Your task to perform on an android device: Go to internet settings Image 0: 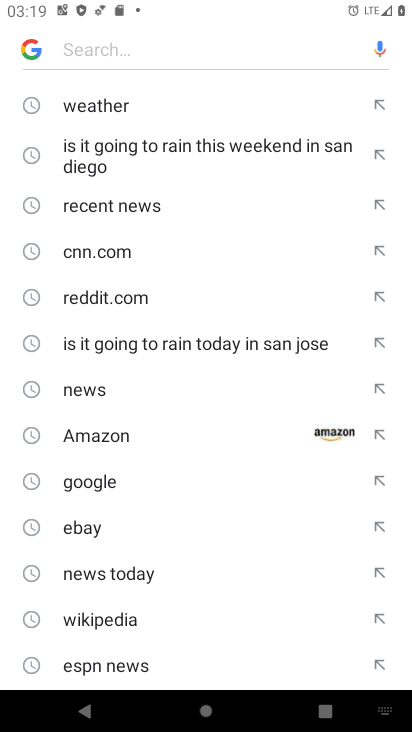
Step 0: press home button
Your task to perform on an android device: Go to internet settings Image 1: 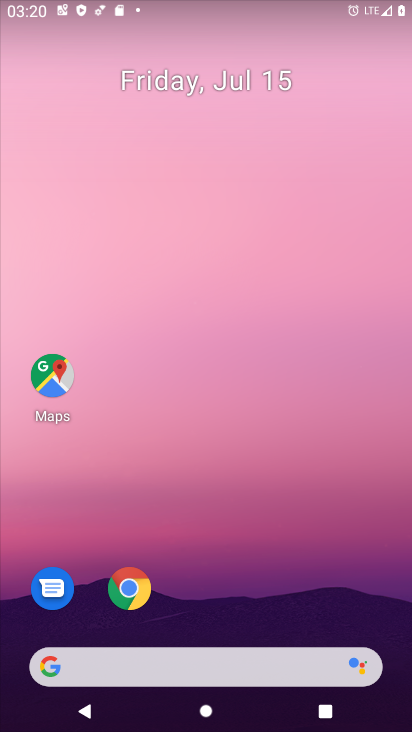
Step 1: drag from (177, 679) to (197, 74)
Your task to perform on an android device: Go to internet settings Image 2: 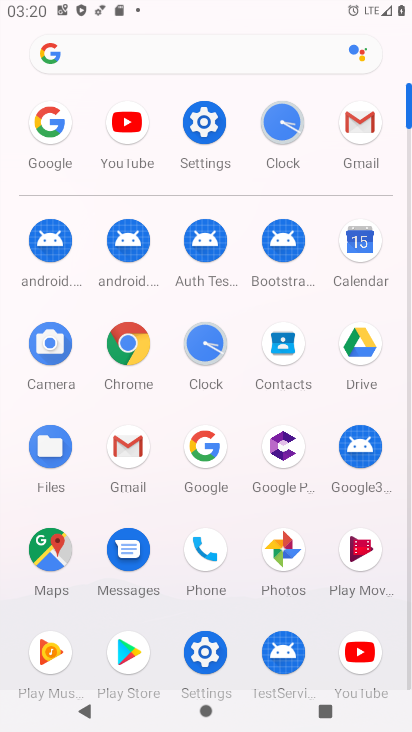
Step 2: click (205, 121)
Your task to perform on an android device: Go to internet settings Image 3: 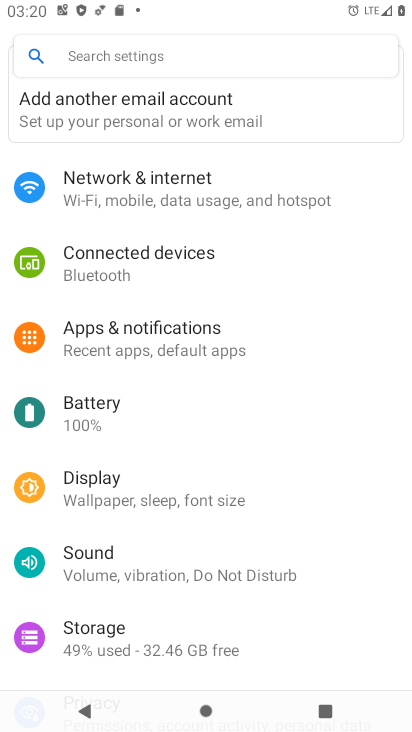
Step 3: click (196, 186)
Your task to perform on an android device: Go to internet settings Image 4: 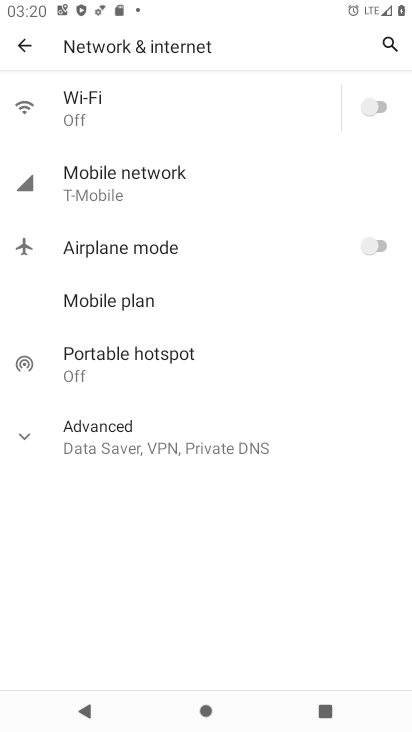
Step 4: task complete